Your task to perform on an android device: Search for logitech g pro on ebay.com, select the first entry, add it to the cart, then select checkout. Image 0: 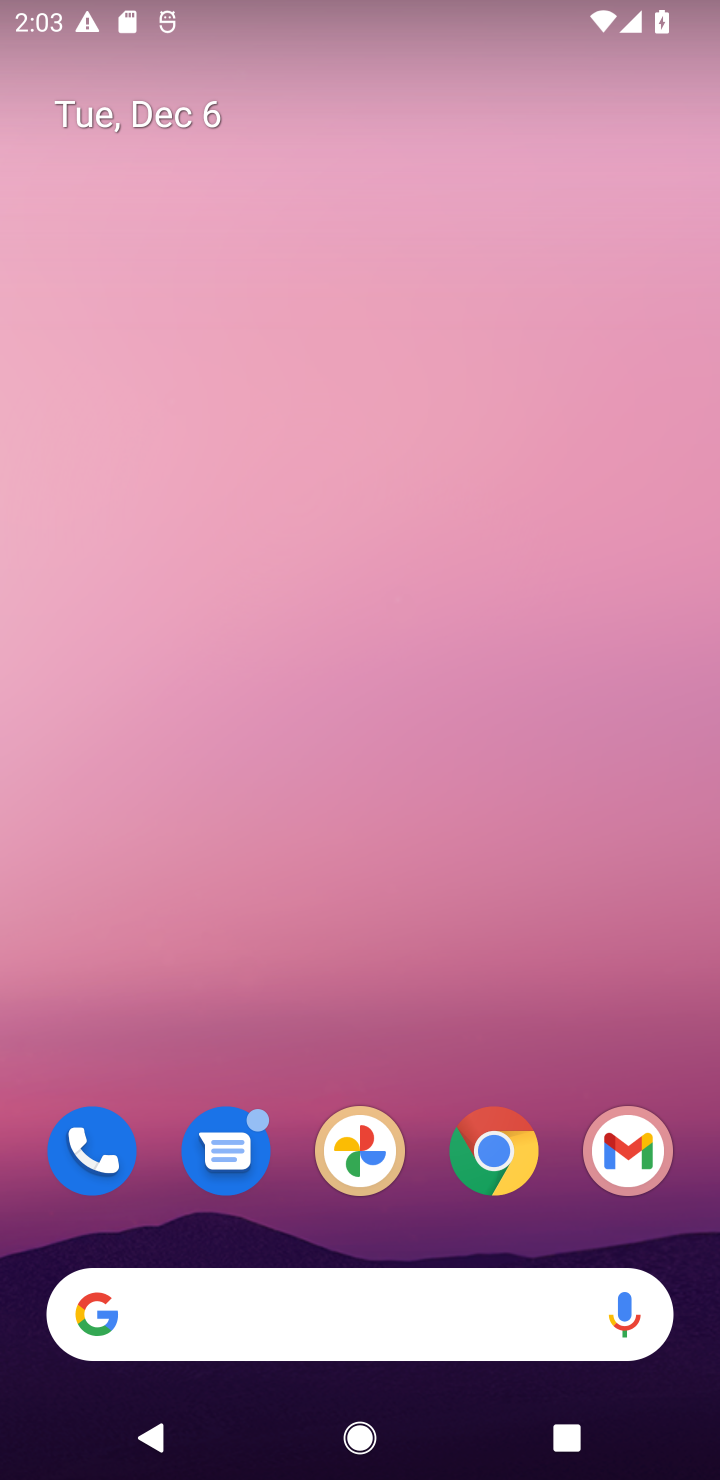
Step 0: click (485, 1158)
Your task to perform on an android device: Search for logitech g pro on ebay.com, select the first entry, add it to the cart, then select checkout. Image 1: 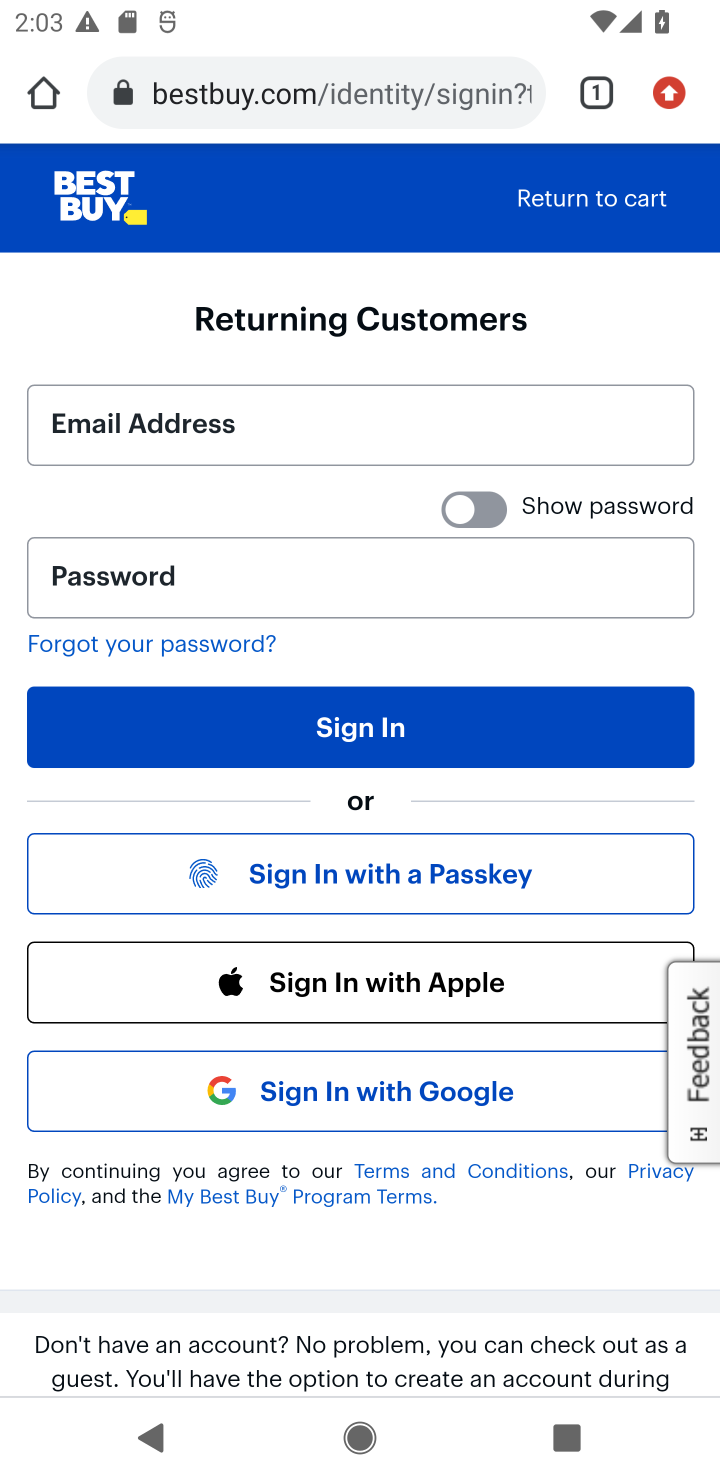
Step 1: click (283, 98)
Your task to perform on an android device: Search for logitech g pro on ebay.com, select the first entry, add it to the cart, then select checkout. Image 2: 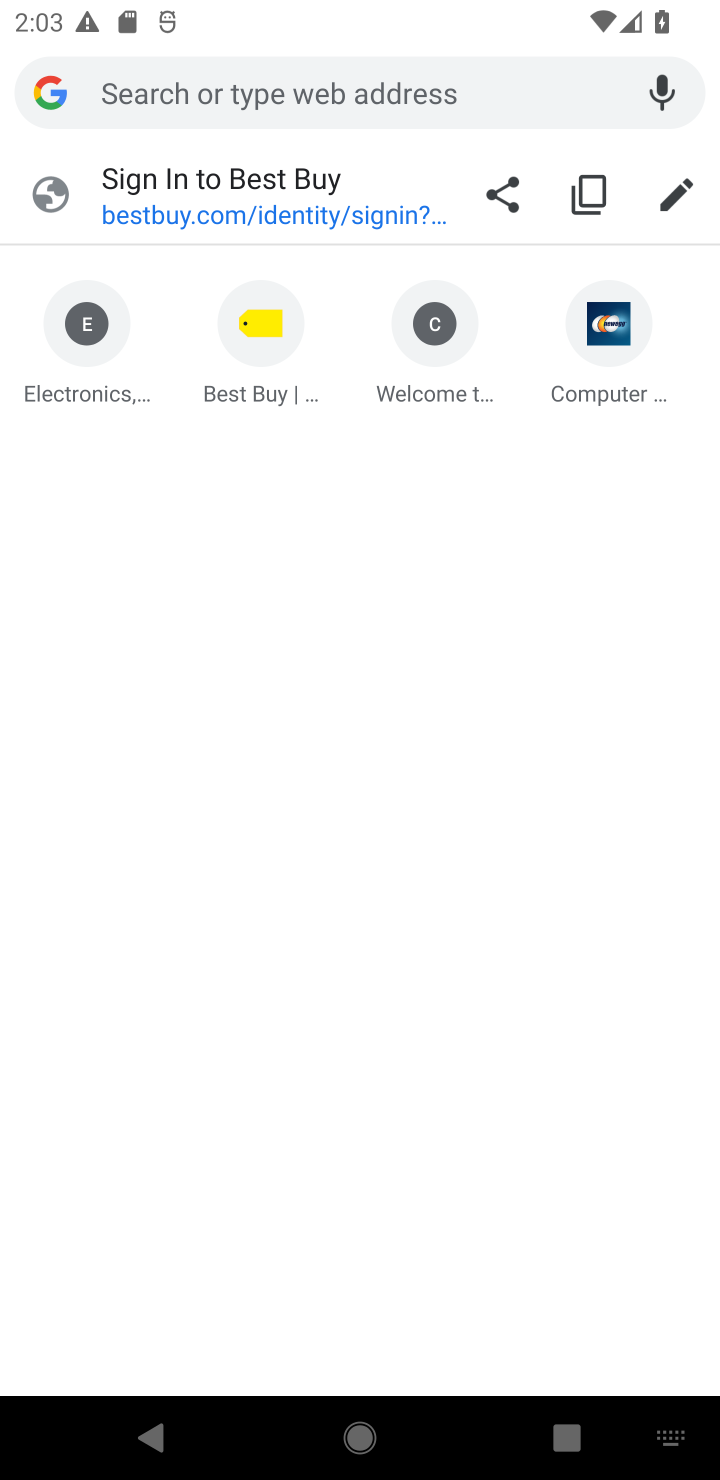
Step 2: type "ebay.com"
Your task to perform on an android device: Search for logitech g pro on ebay.com, select the first entry, add it to the cart, then select checkout. Image 3: 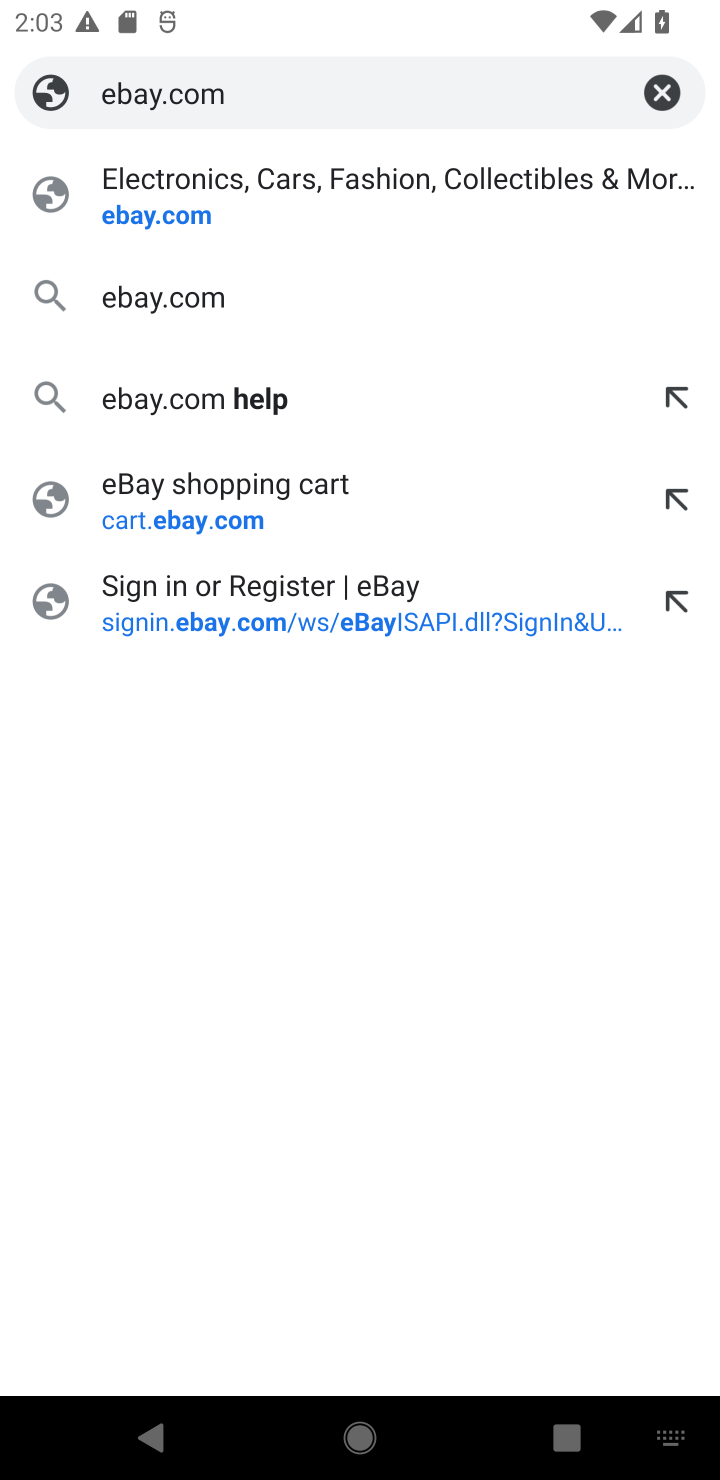
Step 3: click (132, 213)
Your task to perform on an android device: Search for logitech g pro on ebay.com, select the first entry, add it to the cart, then select checkout. Image 4: 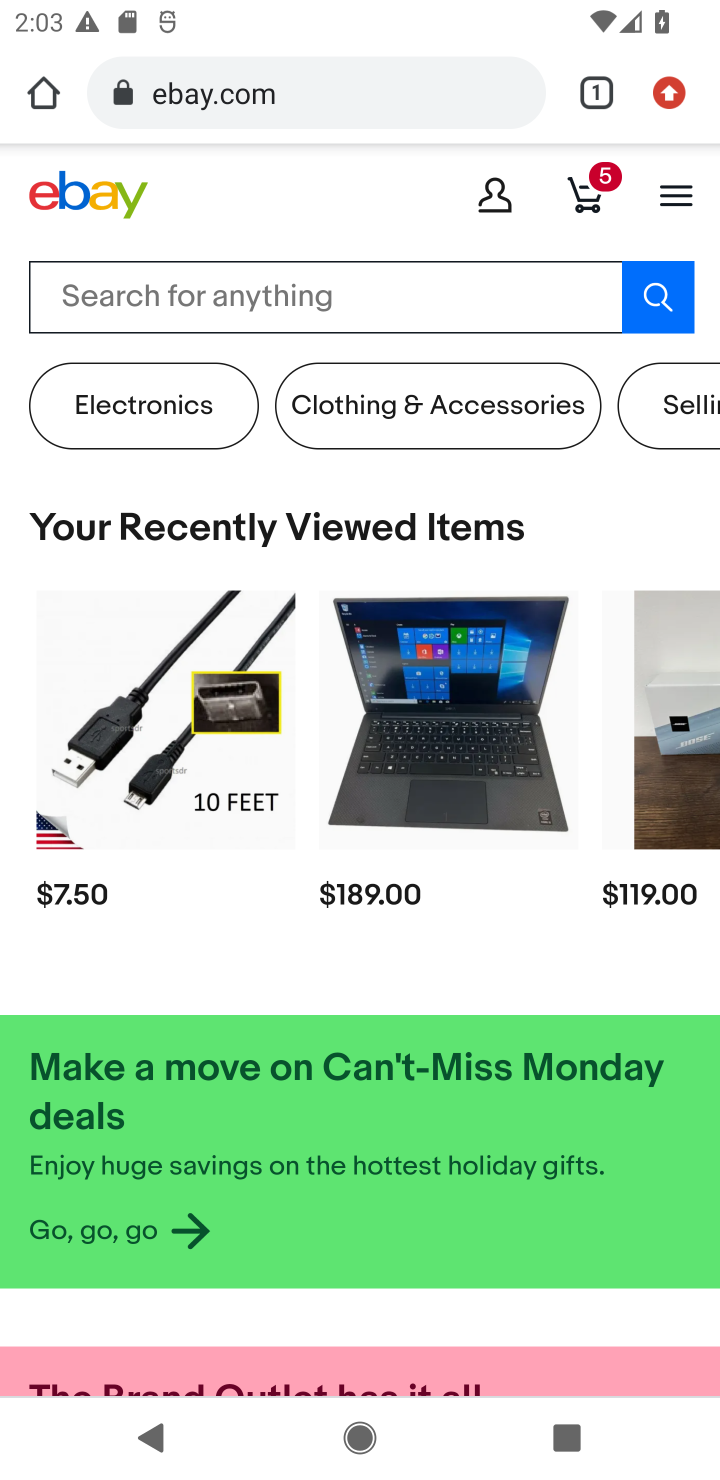
Step 4: click (163, 306)
Your task to perform on an android device: Search for logitech g pro on ebay.com, select the first entry, add it to the cart, then select checkout. Image 5: 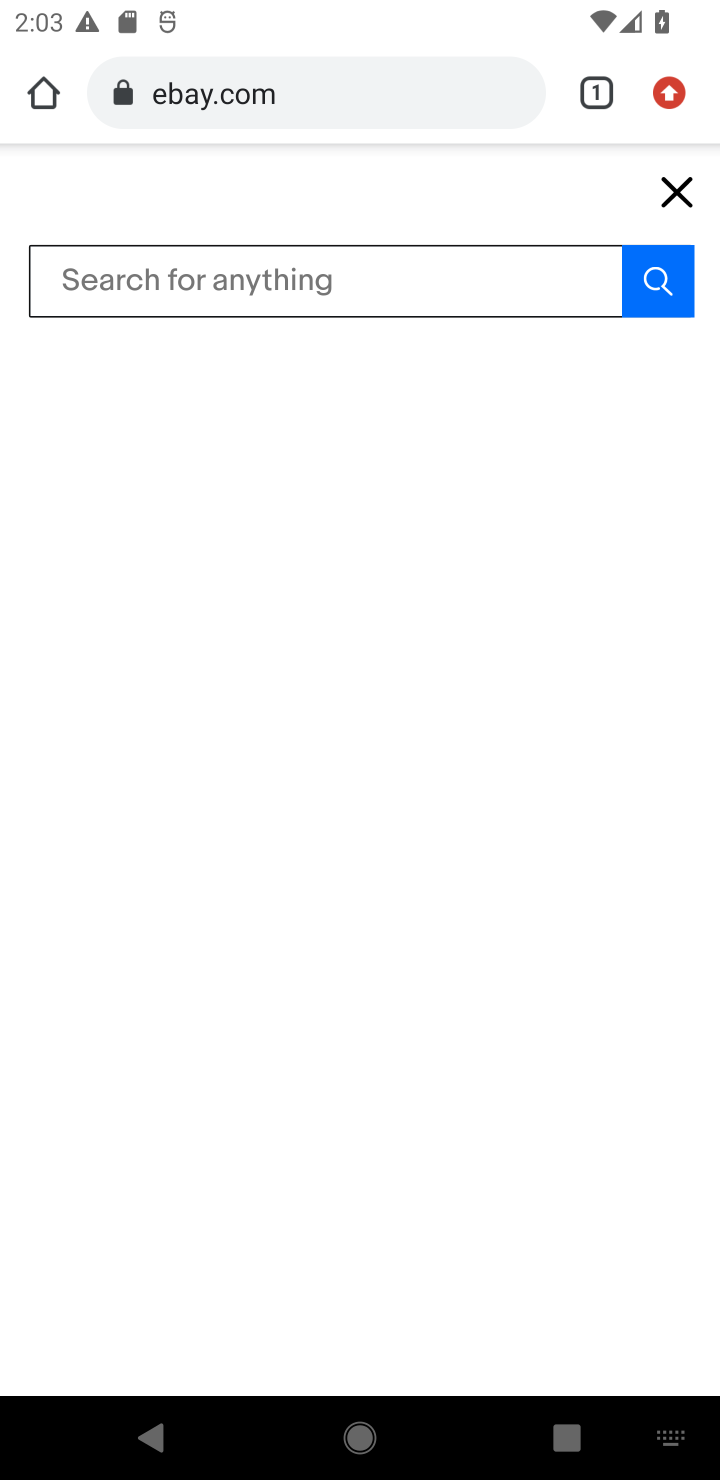
Step 5: type "logitech g pro"
Your task to perform on an android device: Search for logitech g pro on ebay.com, select the first entry, add it to the cart, then select checkout. Image 6: 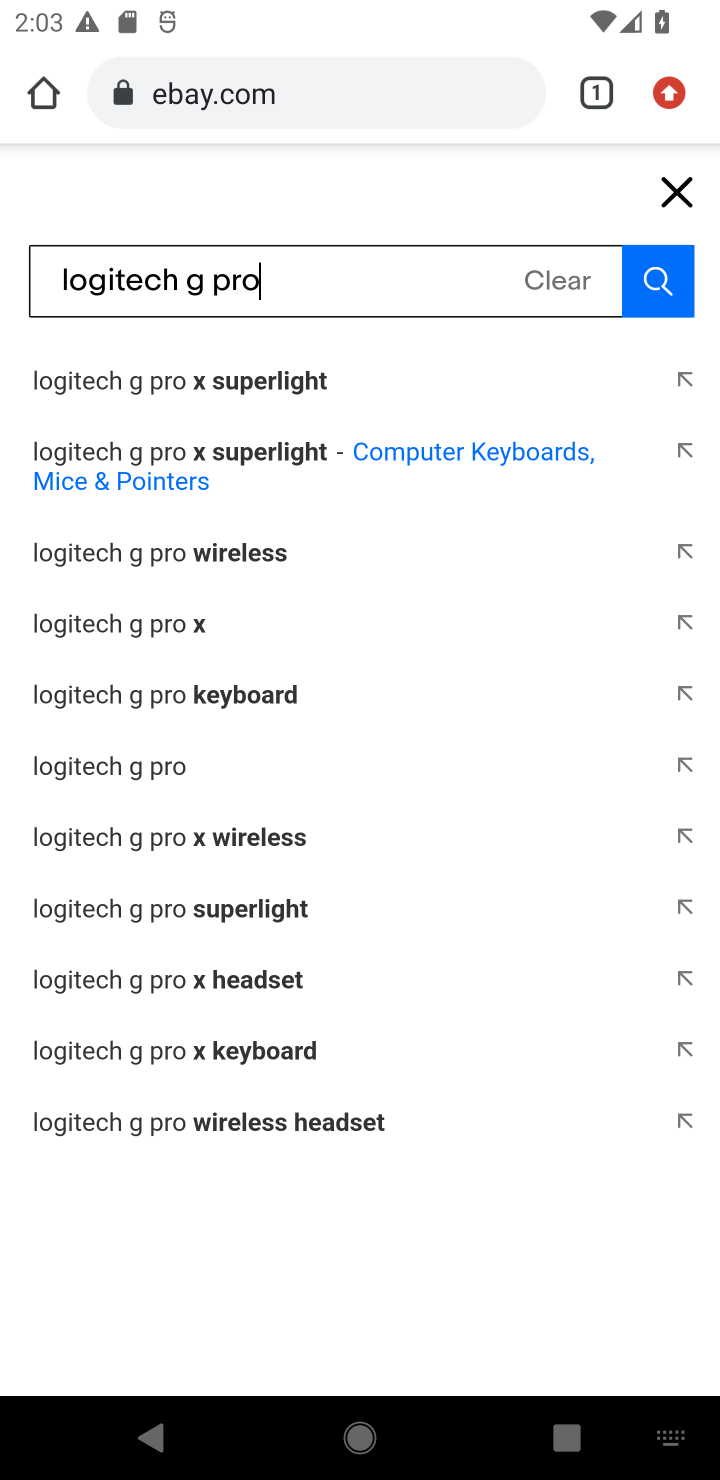
Step 6: click (130, 778)
Your task to perform on an android device: Search for logitech g pro on ebay.com, select the first entry, add it to the cart, then select checkout. Image 7: 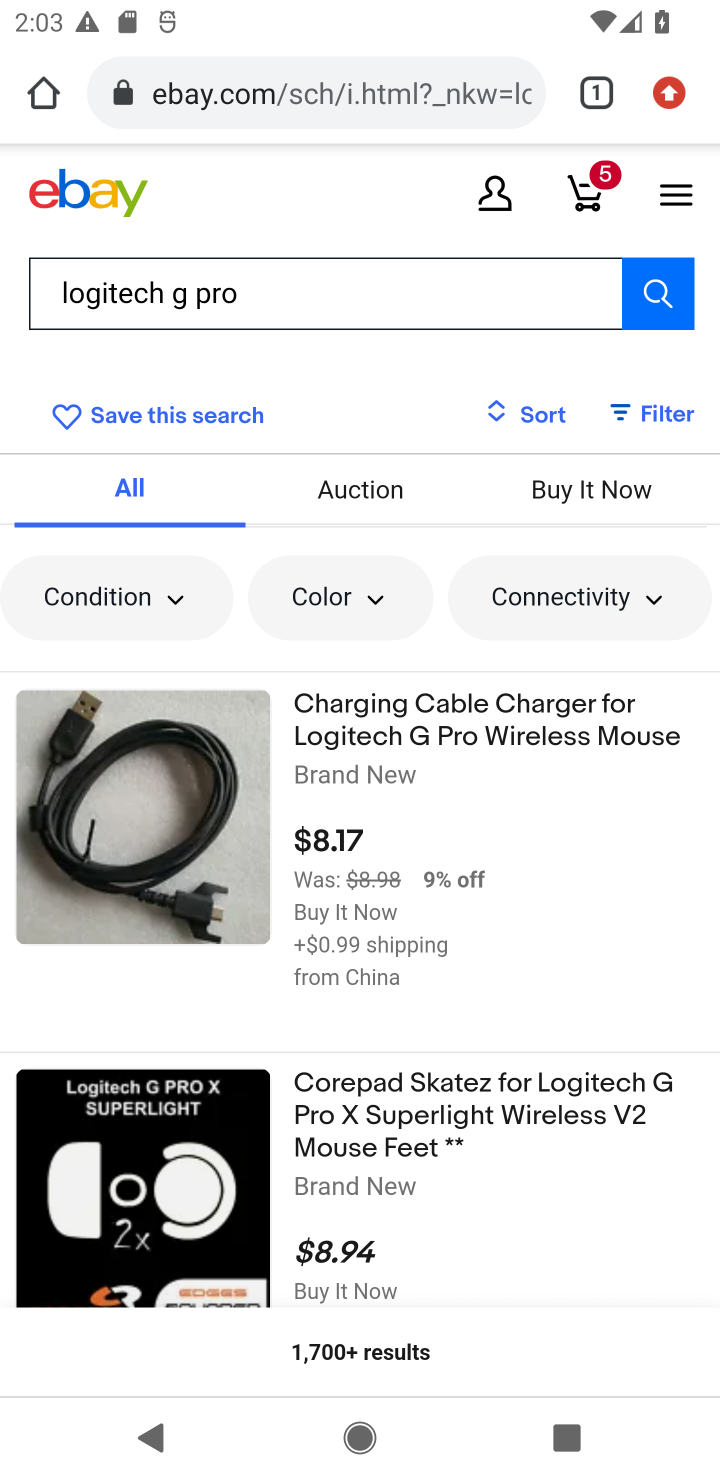
Step 7: click (389, 739)
Your task to perform on an android device: Search for logitech g pro on ebay.com, select the first entry, add it to the cart, then select checkout. Image 8: 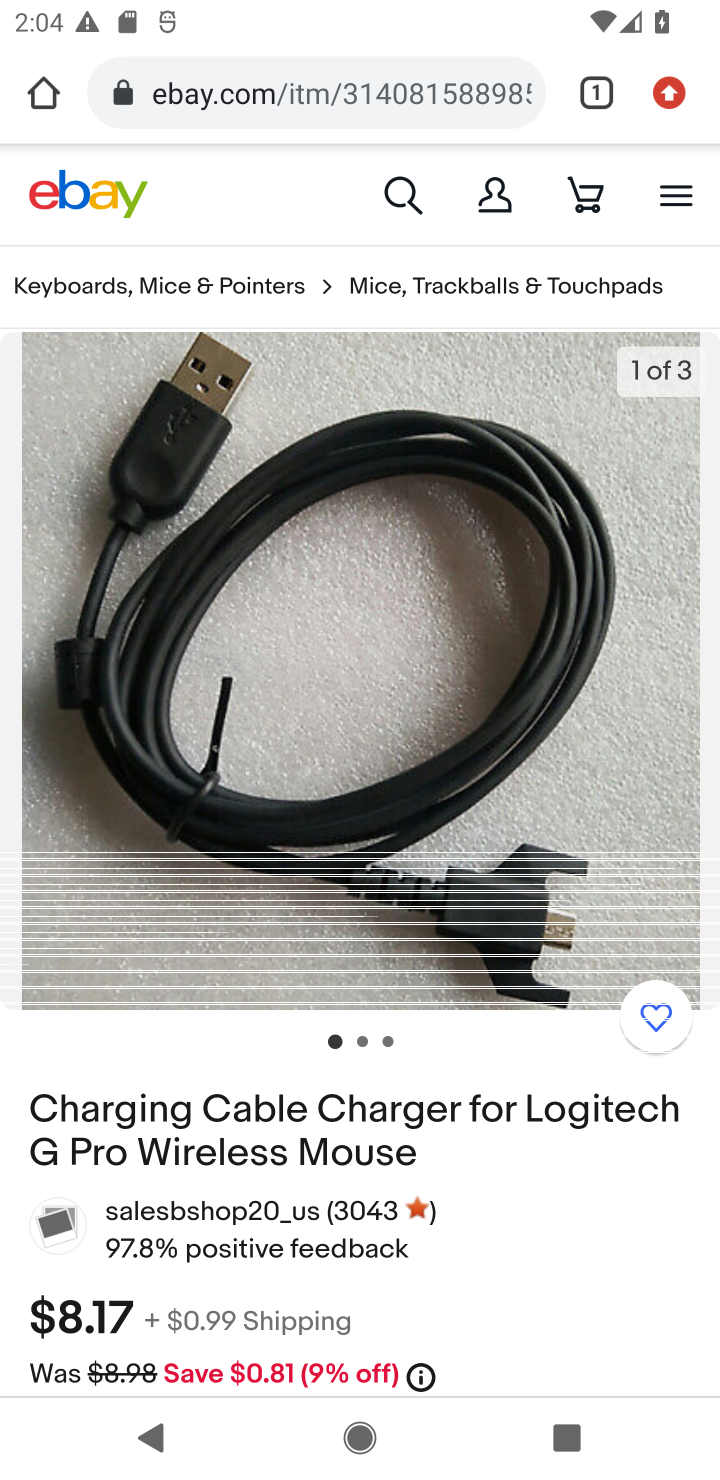
Step 8: drag from (374, 900) to (309, 404)
Your task to perform on an android device: Search for logitech g pro on ebay.com, select the first entry, add it to the cart, then select checkout. Image 9: 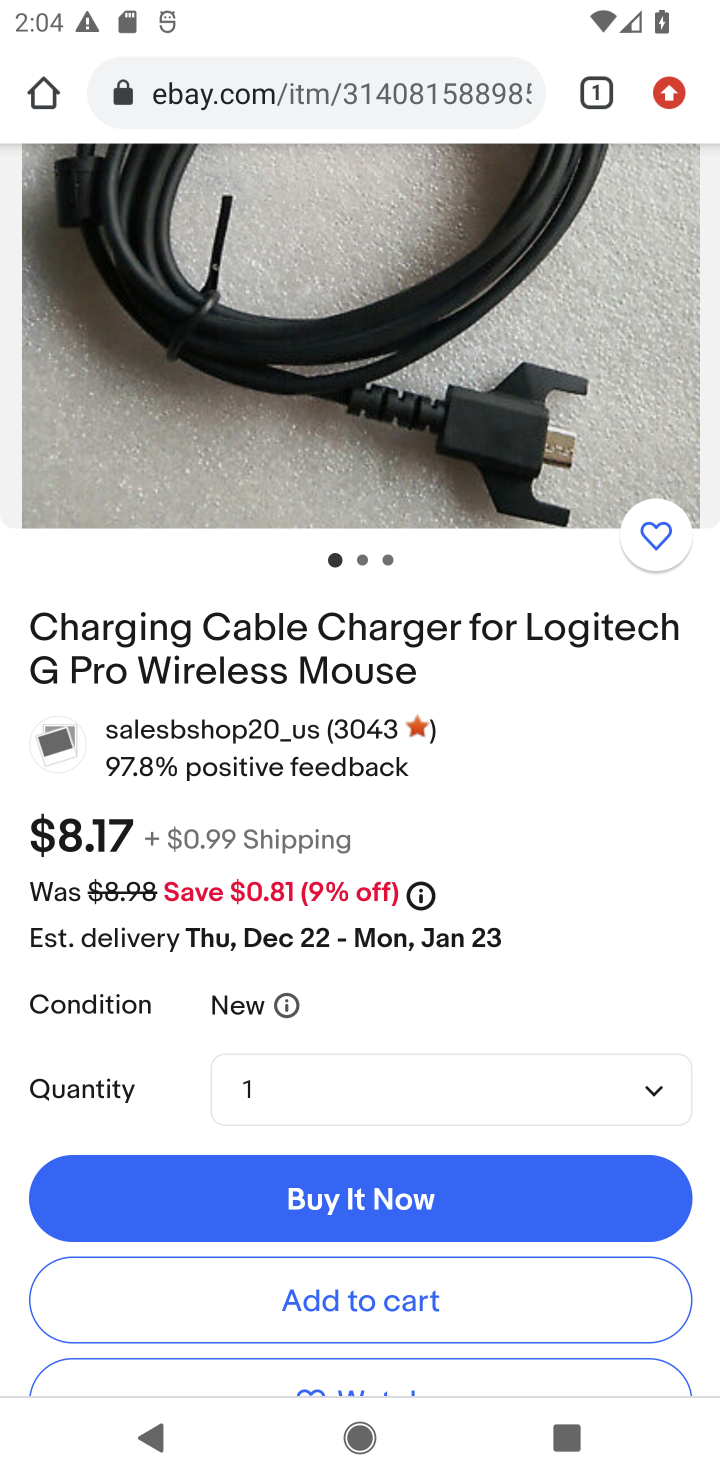
Step 9: click (385, 1290)
Your task to perform on an android device: Search for logitech g pro on ebay.com, select the first entry, add it to the cart, then select checkout. Image 10: 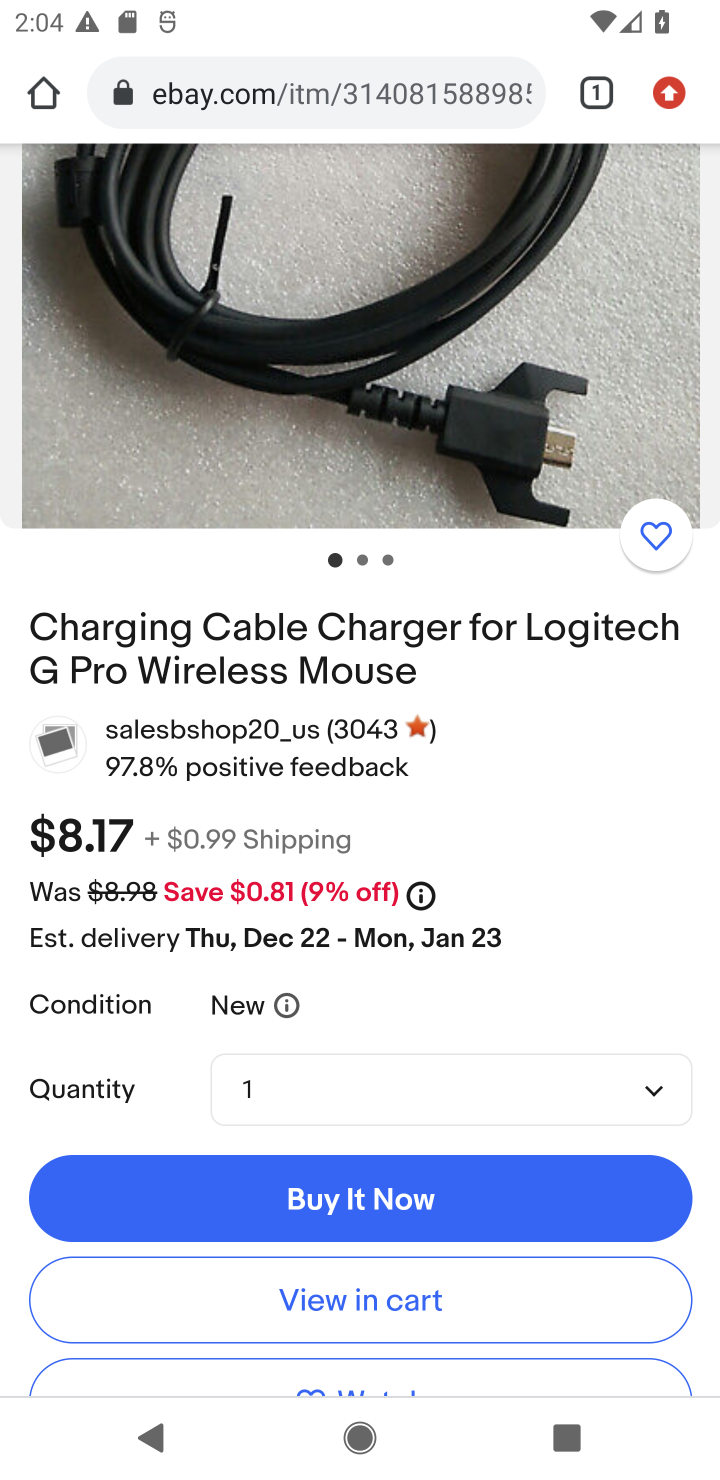
Step 10: click (379, 1299)
Your task to perform on an android device: Search for logitech g pro on ebay.com, select the first entry, add it to the cart, then select checkout. Image 11: 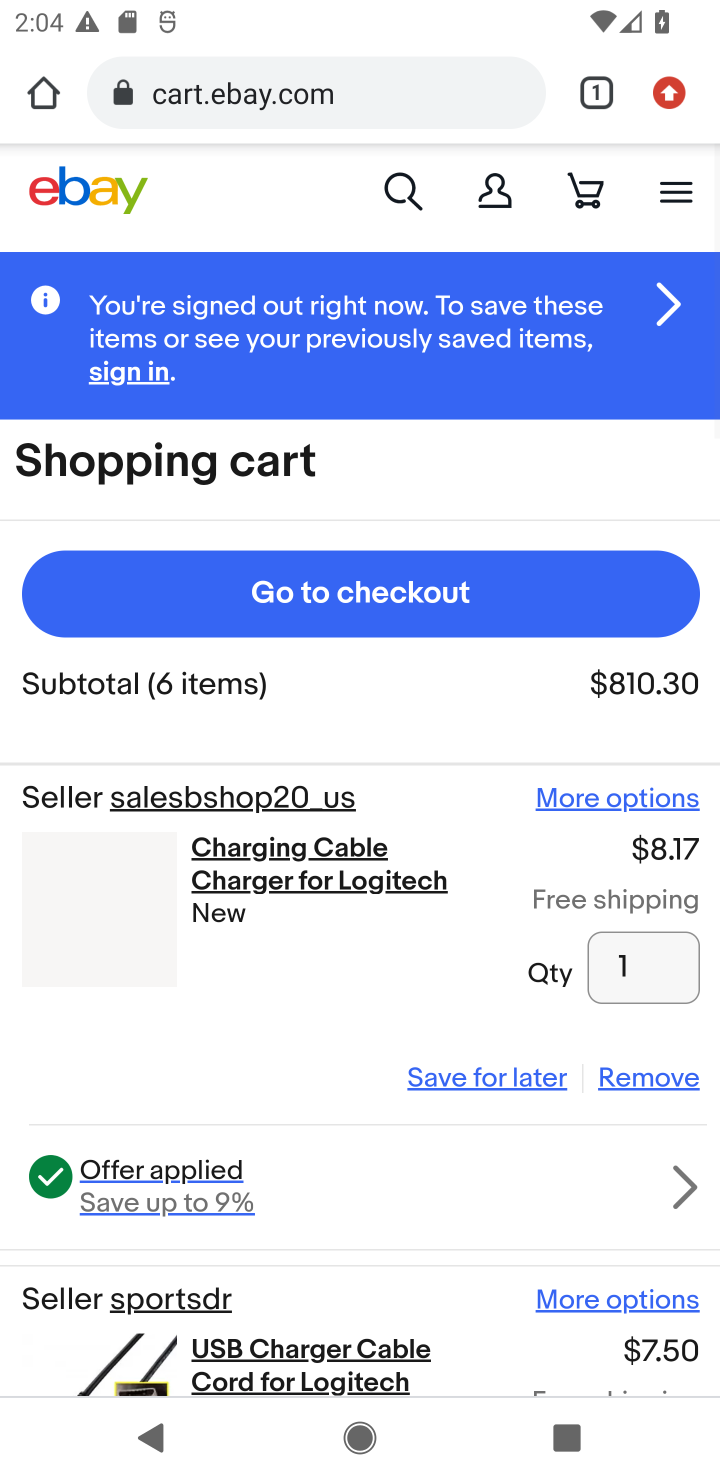
Step 11: click (327, 595)
Your task to perform on an android device: Search for logitech g pro on ebay.com, select the first entry, add it to the cart, then select checkout. Image 12: 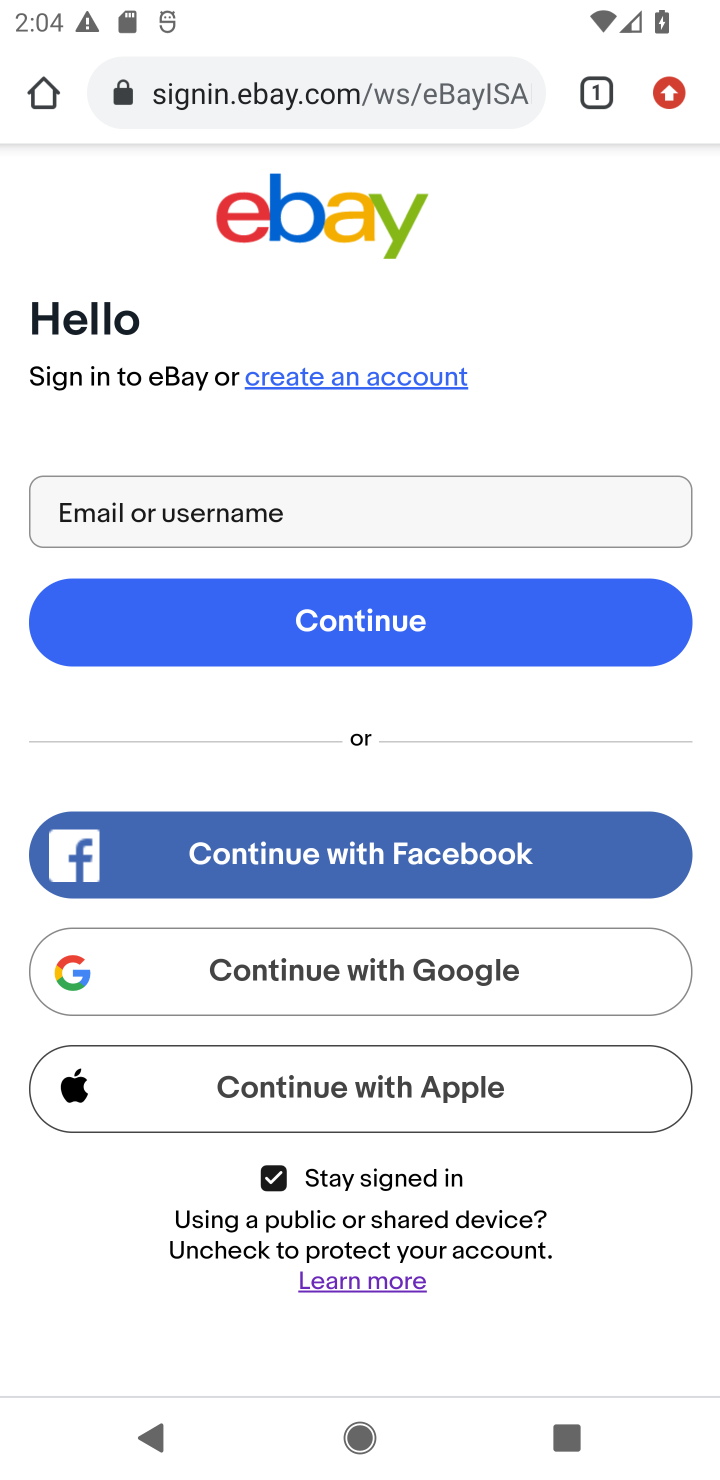
Step 12: task complete